Your task to perform on an android device: change the clock display to show seconds Image 0: 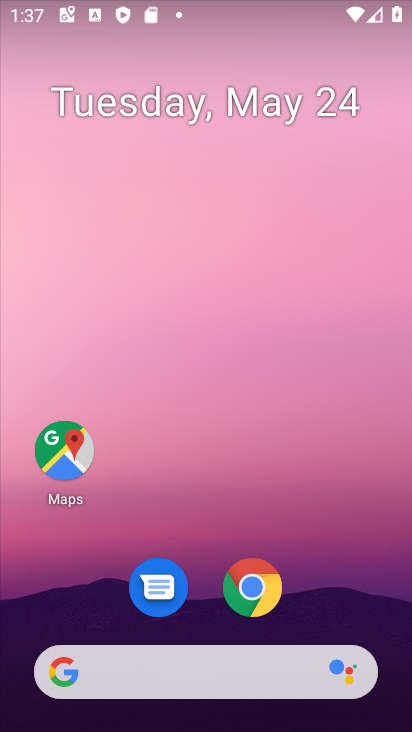
Step 0: drag from (250, 704) to (249, 182)
Your task to perform on an android device: change the clock display to show seconds Image 1: 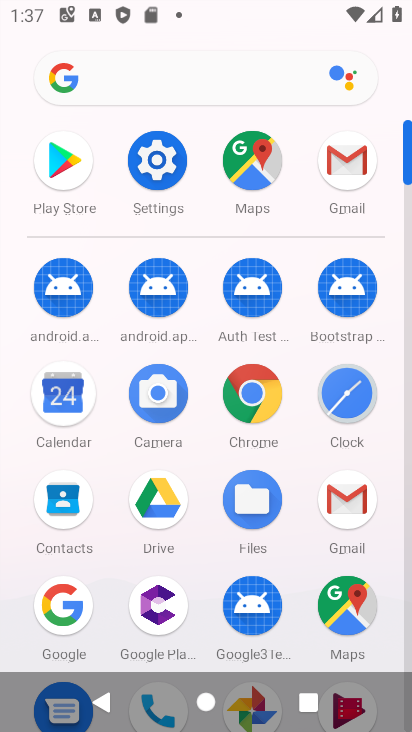
Step 1: click (346, 406)
Your task to perform on an android device: change the clock display to show seconds Image 2: 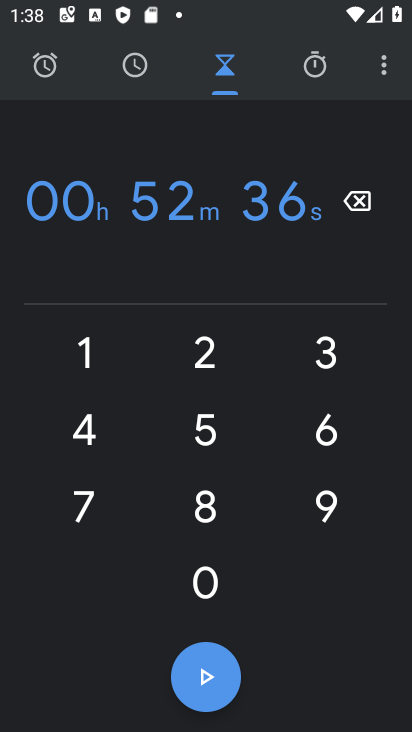
Step 2: click (383, 66)
Your task to perform on an android device: change the clock display to show seconds Image 3: 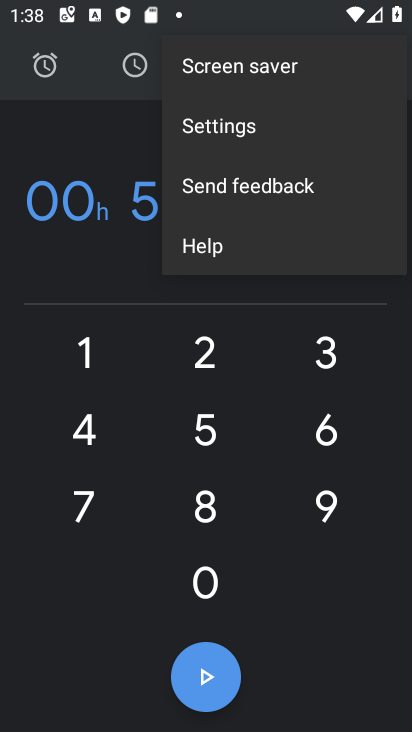
Step 3: click (286, 115)
Your task to perform on an android device: change the clock display to show seconds Image 4: 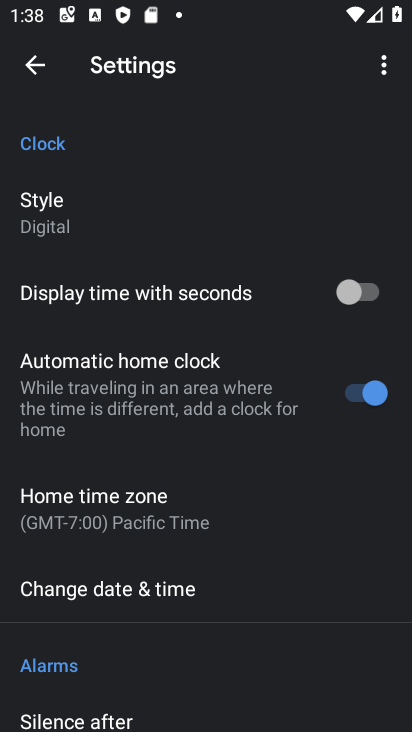
Step 4: click (375, 294)
Your task to perform on an android device: change the clock display to show seconds Image 5: 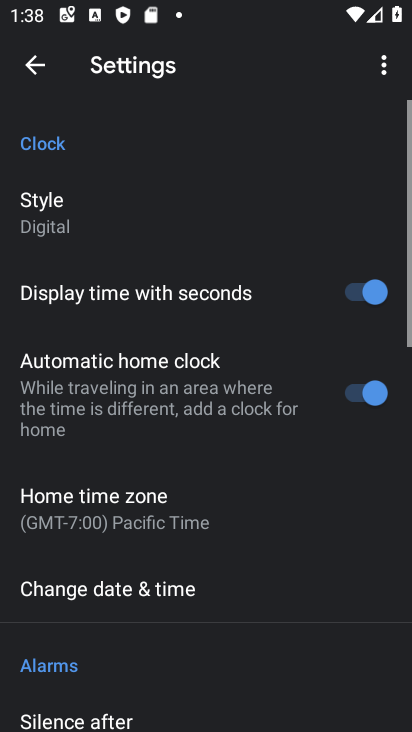
Step 5: task complete